Your task to perform on an android device: open app "Flipkart Online Shopping App" (install if not already installed) Image 0: 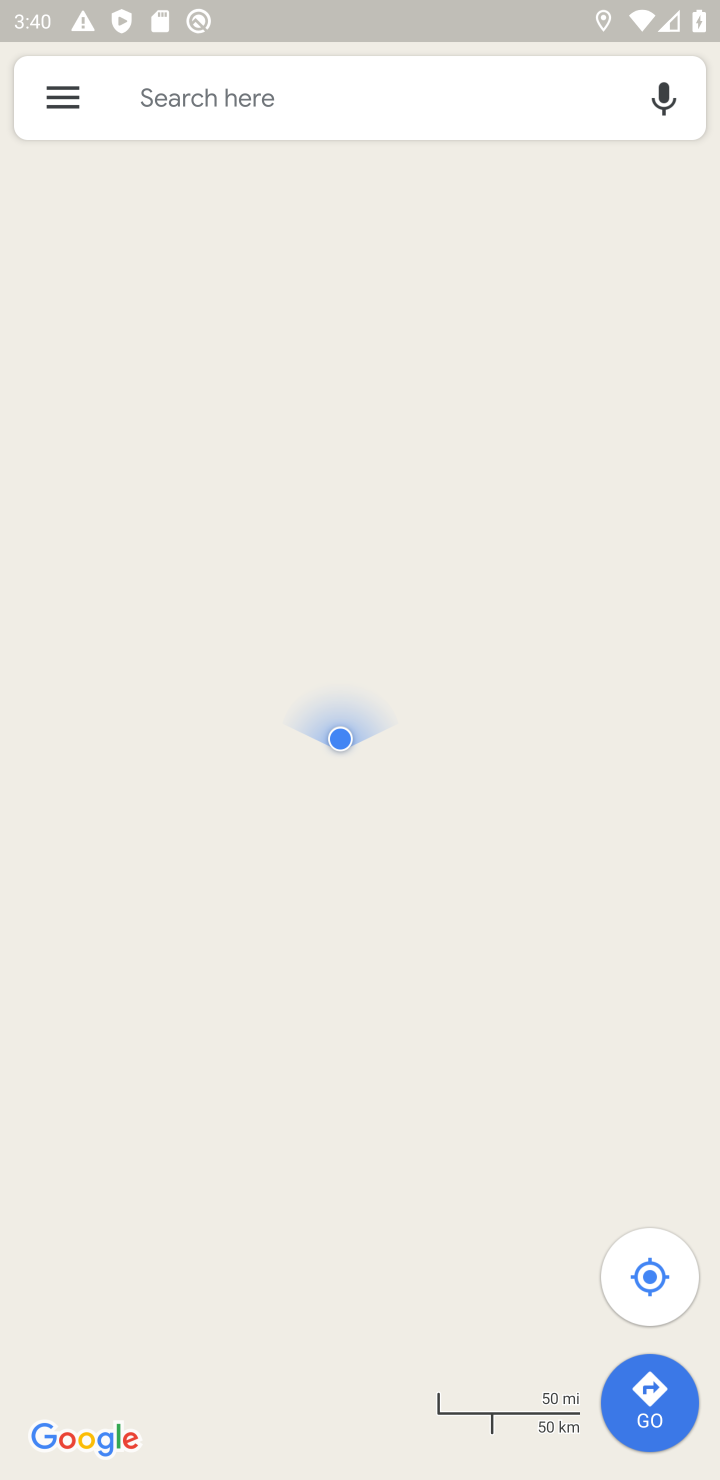
Step 0: press home button
Your task to perform on an android device: open app "Flipkart Online Shopping App" (install if not already installed) Image 1: 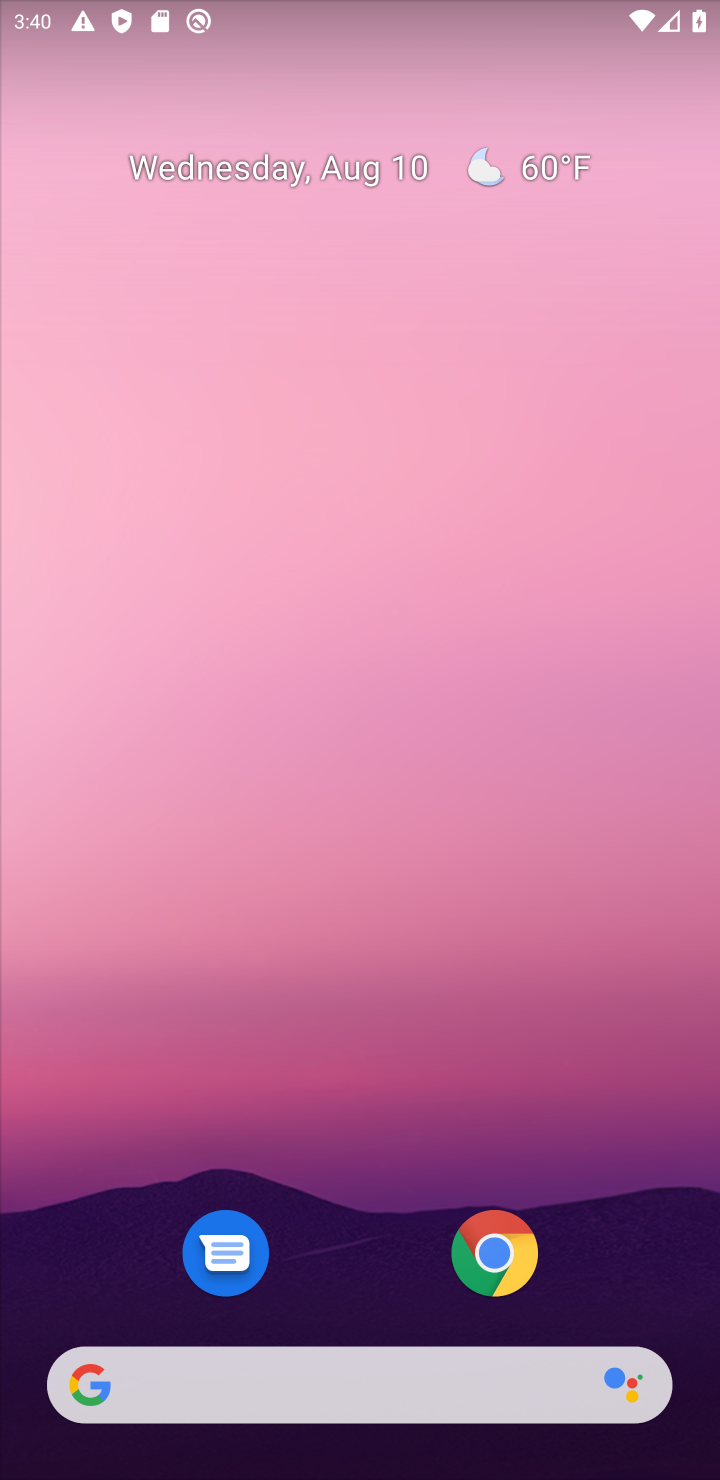
Step 1: drag from (405, 1362) to (390, 489)
Your task to perform on an android device: open app "Flipkart Online Shopping App" (install if not already installed) Image 2: 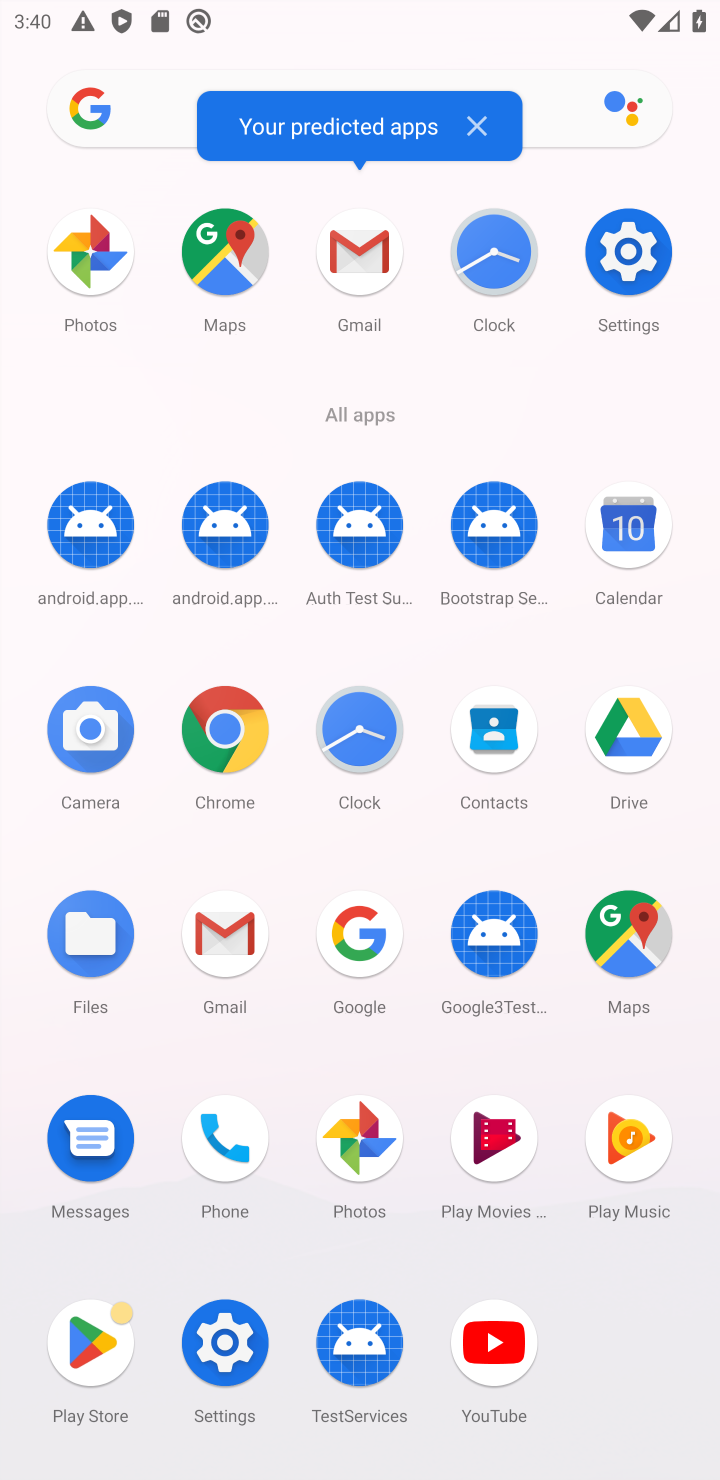
Step 2: click (79, 1347)
Your task to perform on an android device: open app "Flipkart Online Shopping App" (install if not already installed) Image 3: 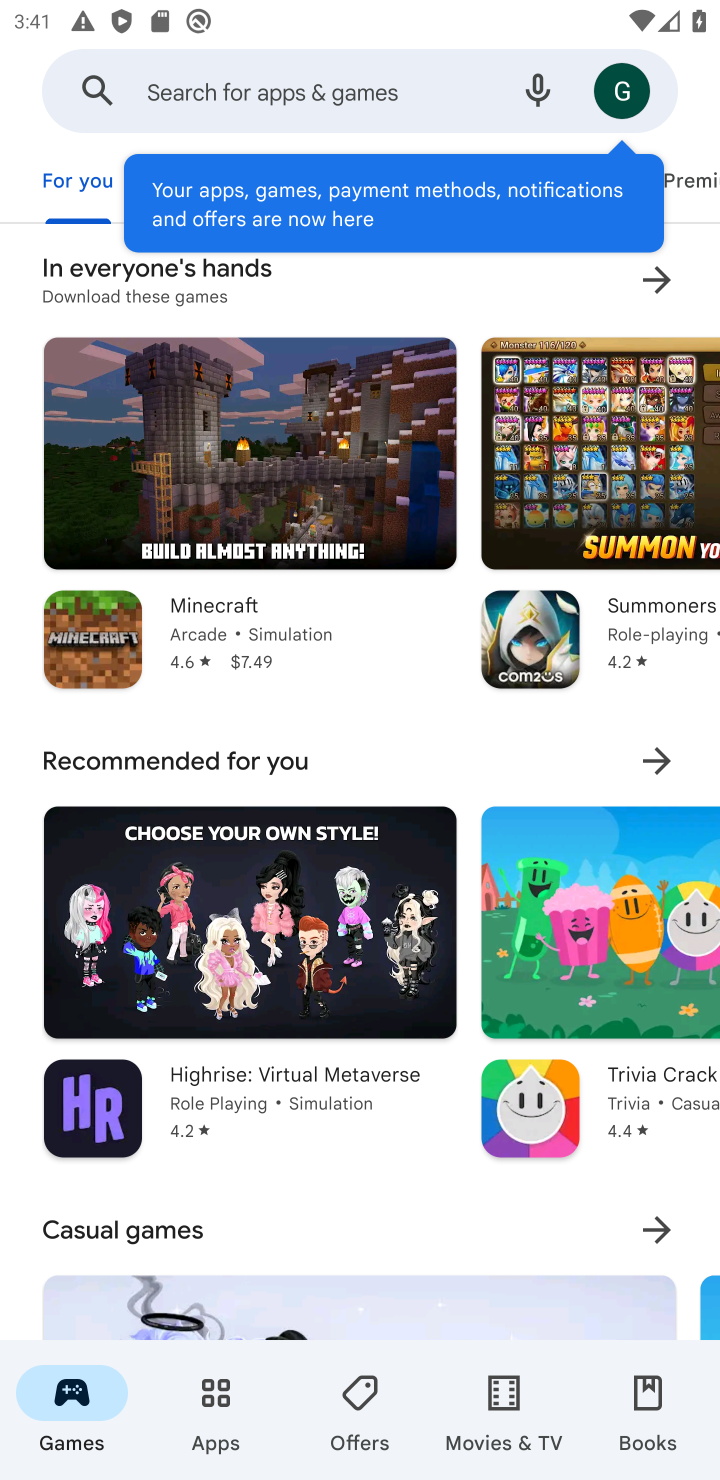
Step 3: click (370, 95)
Your task to perform on an android device: open app "Flipkart Online Shopping App" (install if not already installed) Image 4: 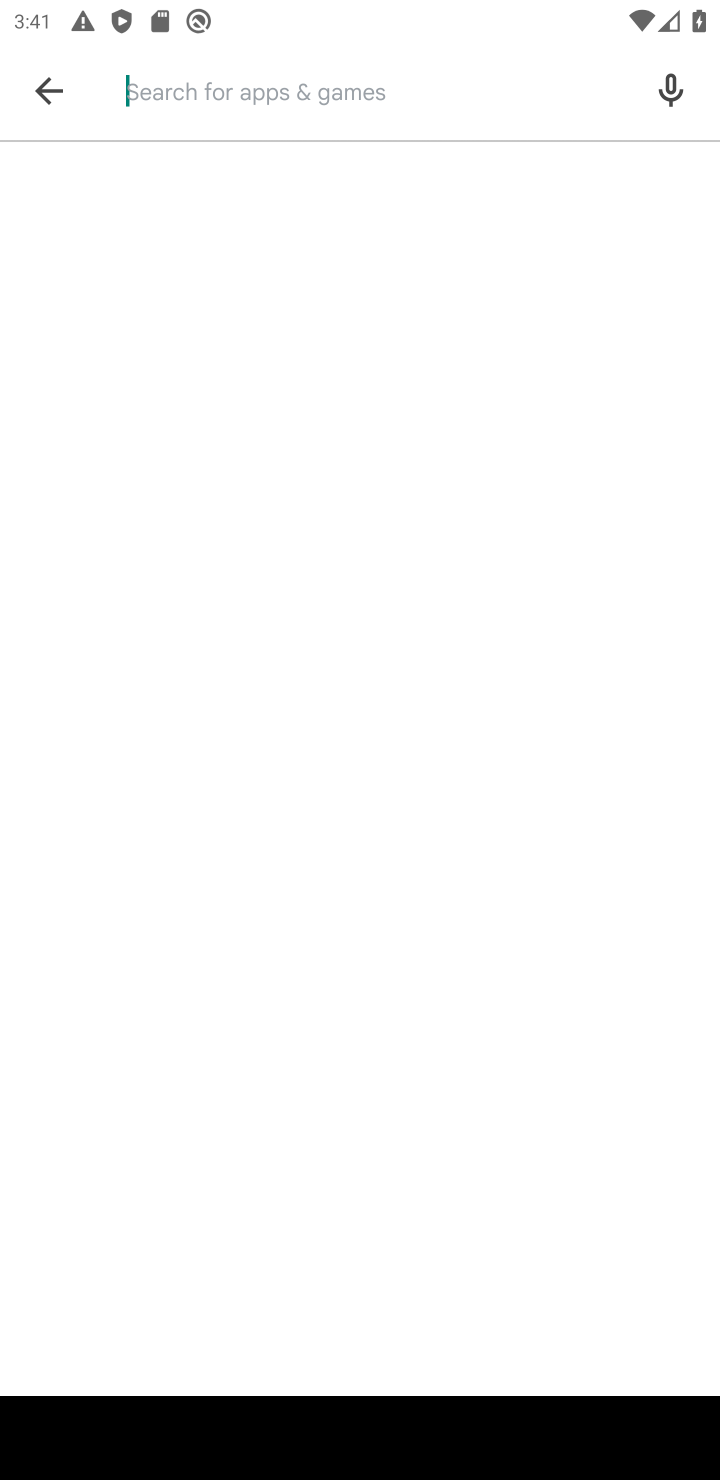
Step 4: type "flipkart "
Your task to perform on an android device: open app "Flipkart Online Shopping App" (install if not already installed) Image 5: 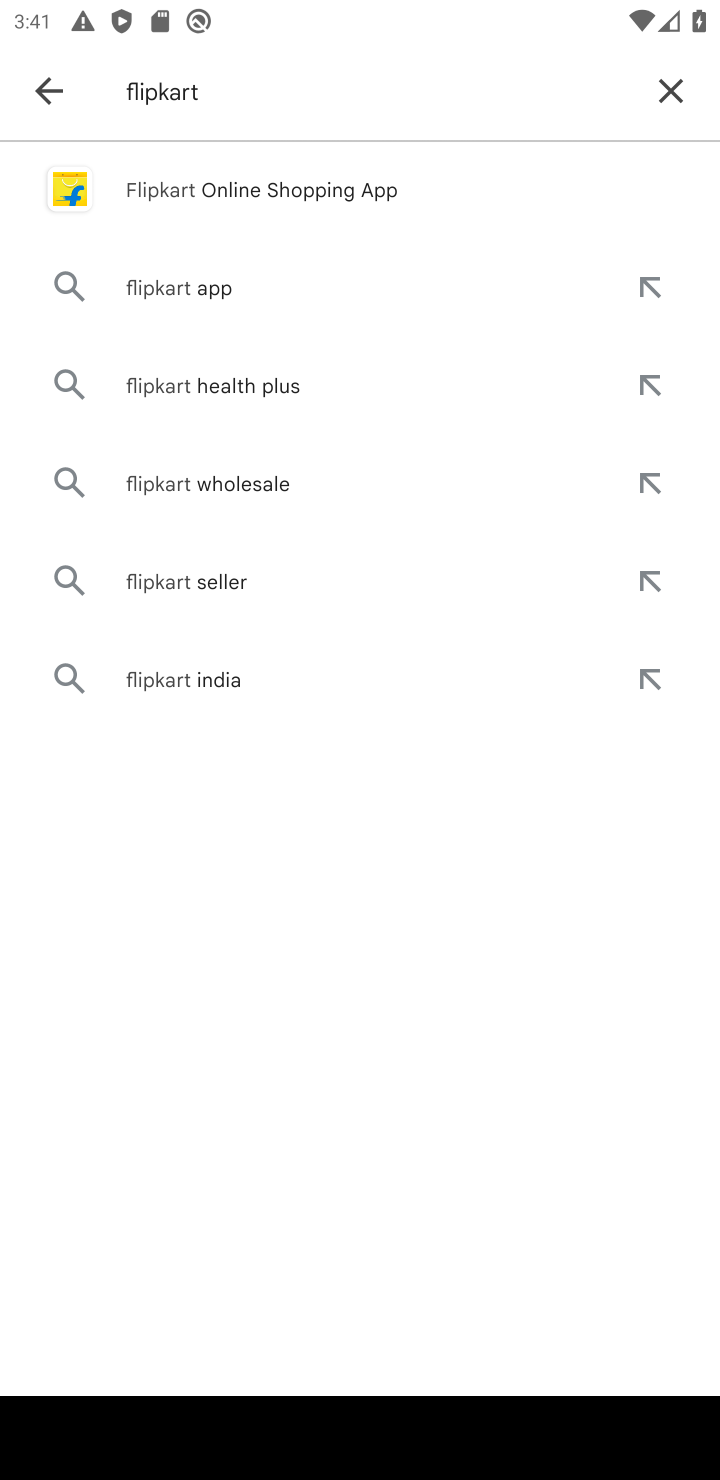
Step 5: click (342, 186)
Your task to perform on an android device: open app "Flipkart Online Shopping App" (install if not already installed) Image 6: 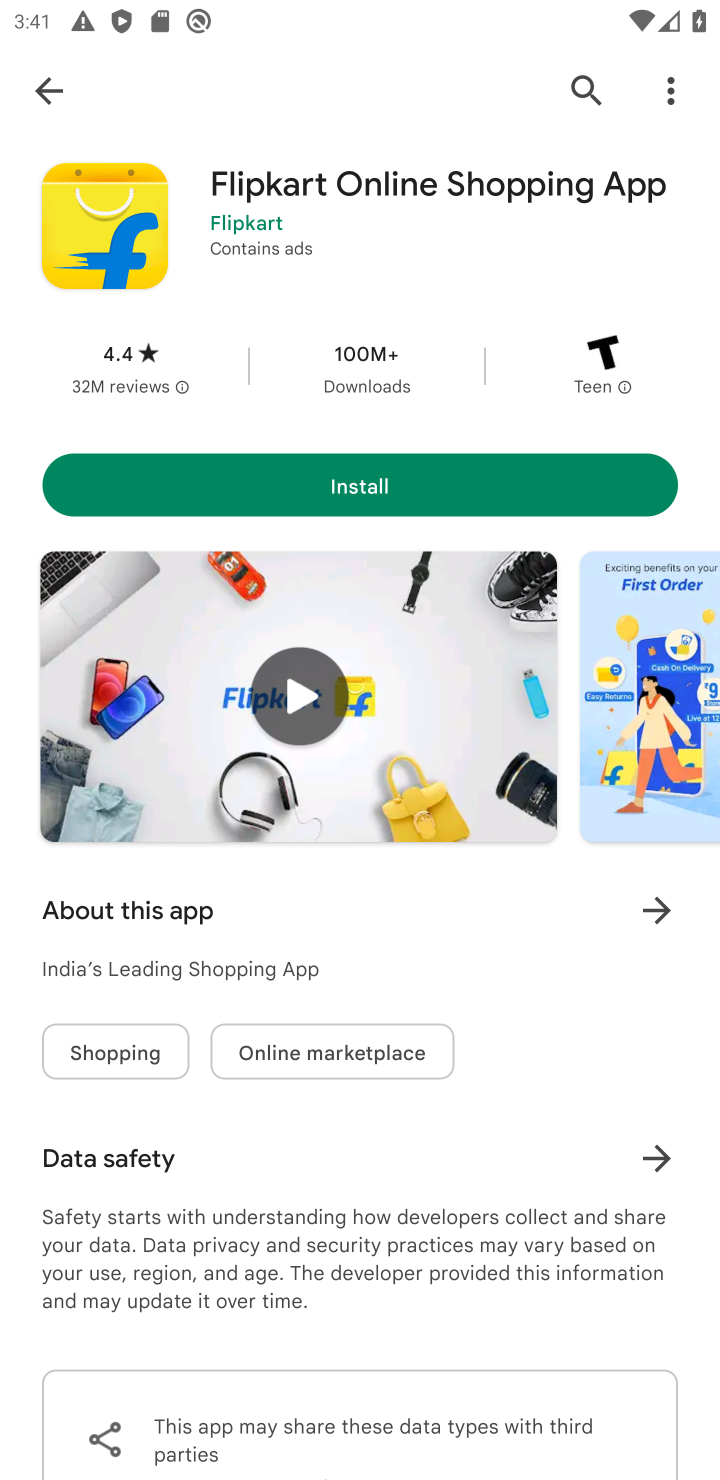
Step 6: click (381, 454)
Your task to perform on an android device: open app "Flipkart Online Shopping App" (install if not already installed) Image 7: 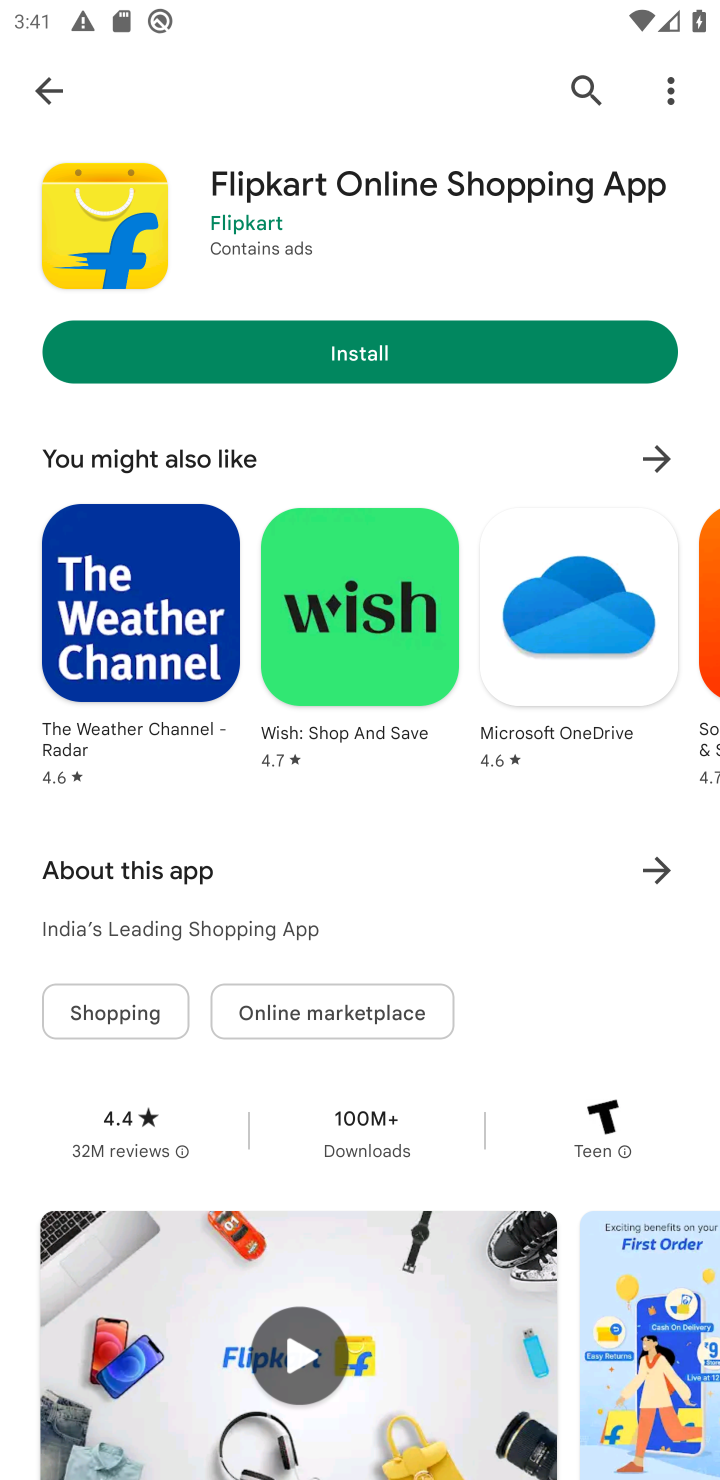
Step 7: click (452, 361)
Your task to perform on an android device: open app "Flipkart Online Shopping App" (install if not already installed) Image 8: 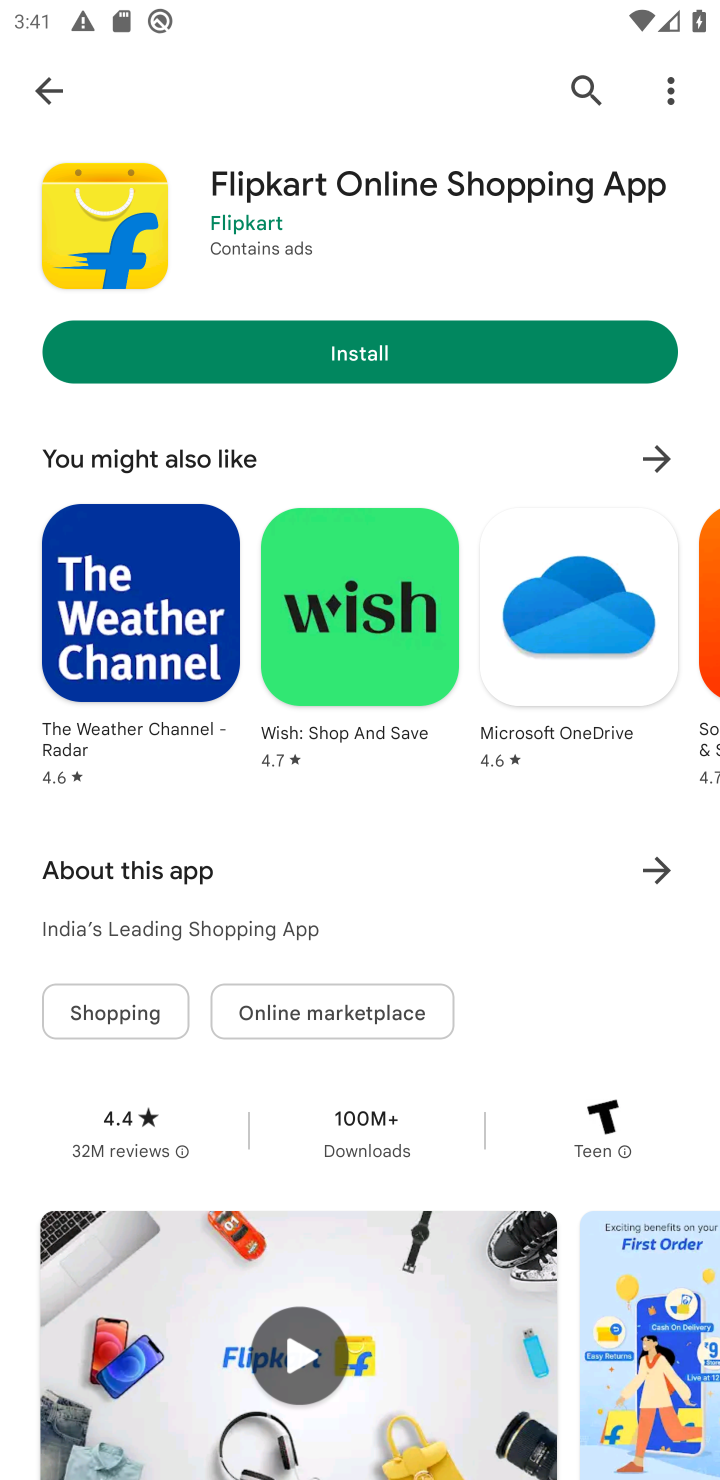
Step 8: click (391, 352)
Your task to perform on an android device: open app "Flipkart Online Shopping App" (install if not already installed) Image 9: 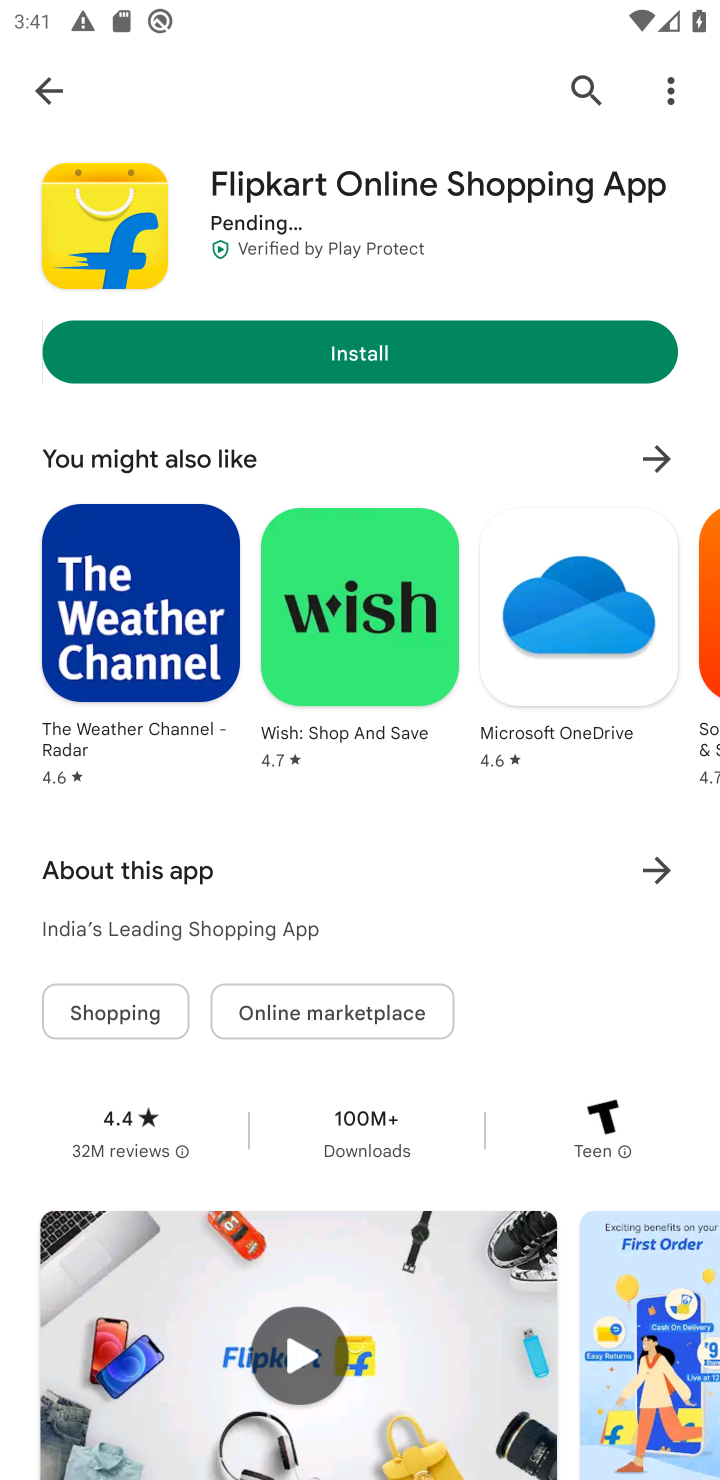
Step 9: click (391, 352)
Your task to perform on an android device: open app "Flipkart Online Shopping App" (install if not already installed) Image 10: 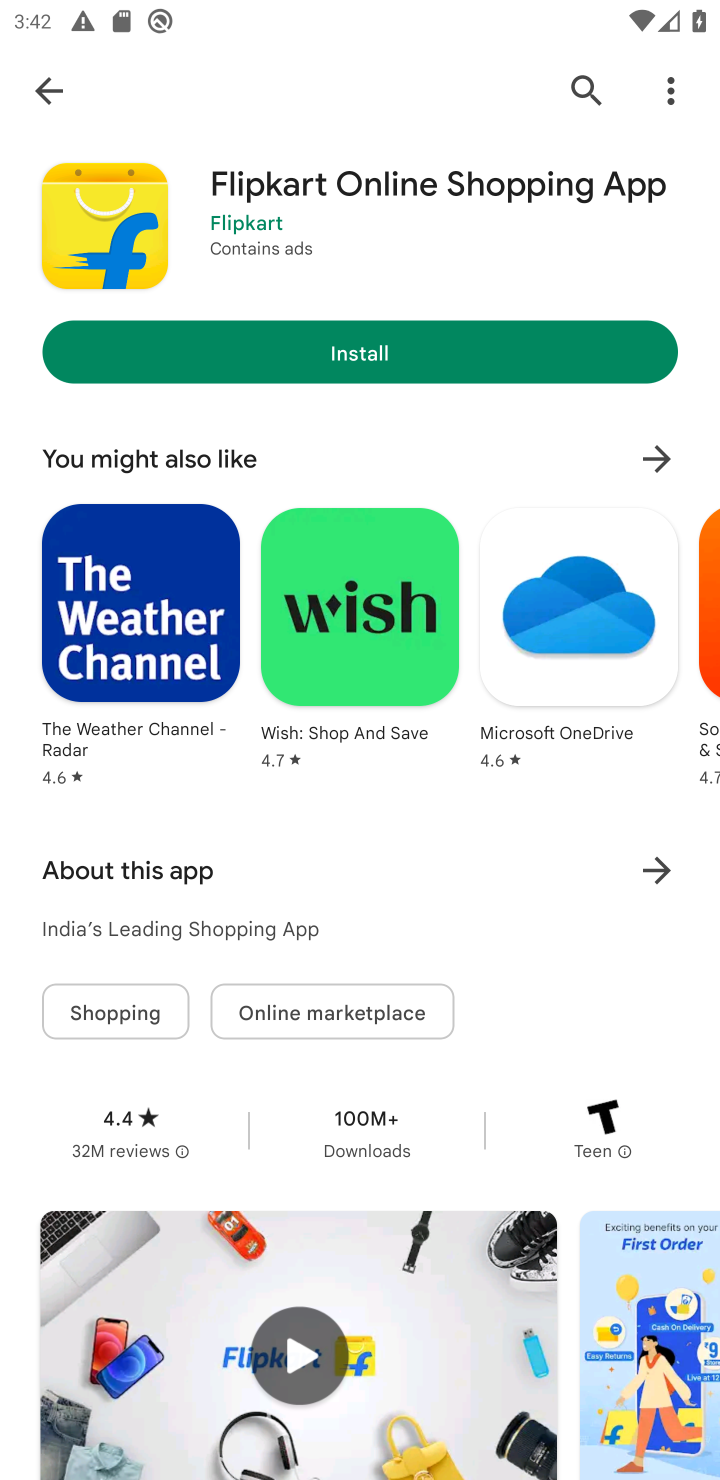
Step 10: click (371, 345)
Your task to perform on an android device: open app "Flipkart Online Shopping App" (install if not already installed) Image 11: 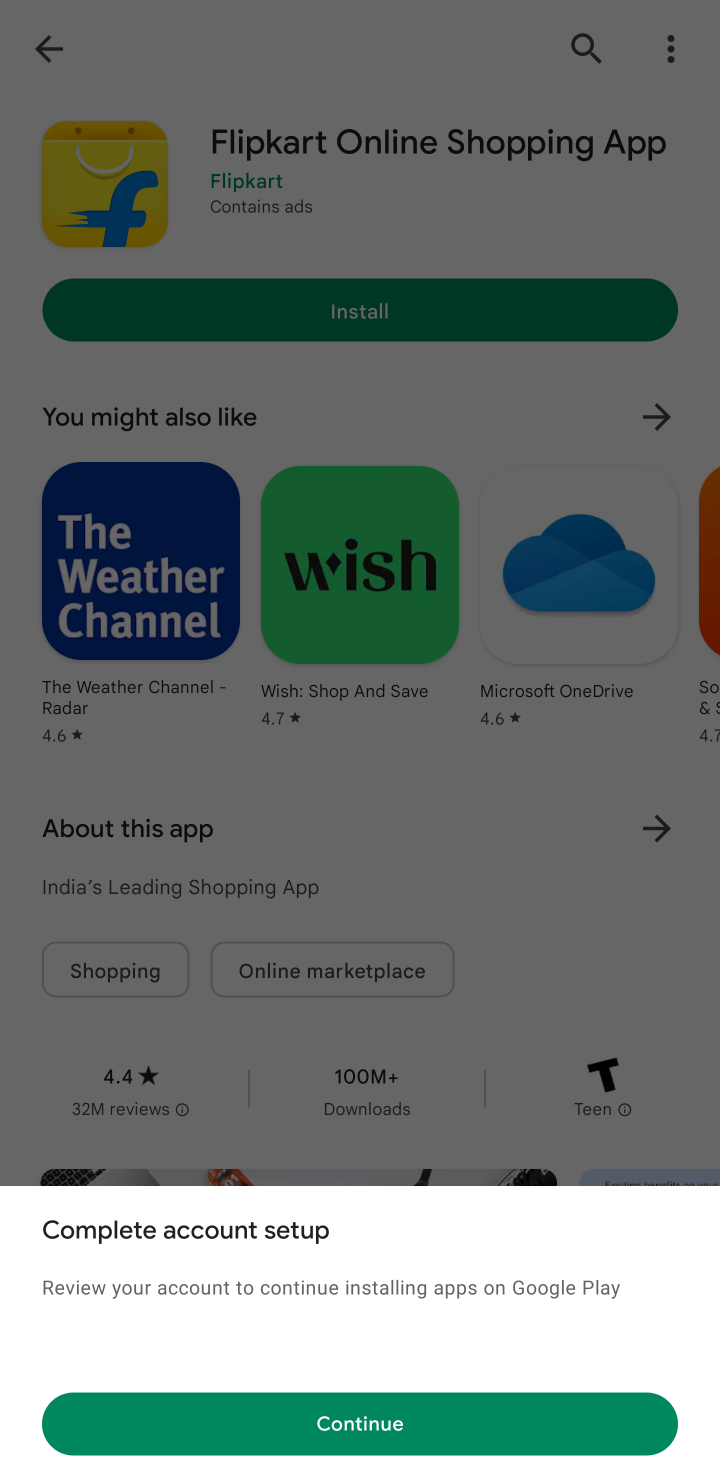
Step 11: task complete